Your task to perform on an android device: Go to privacy settings Image 0: 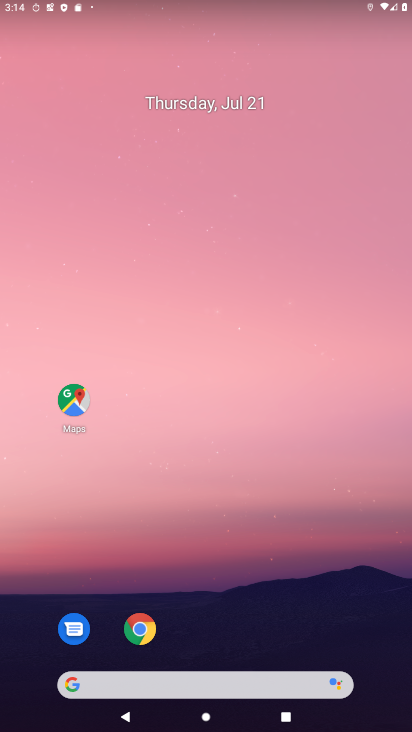
Step 0: drag from (218, 603) to (226, 80)
Your task to perform on an android device: Go to privacy settings Image 1: 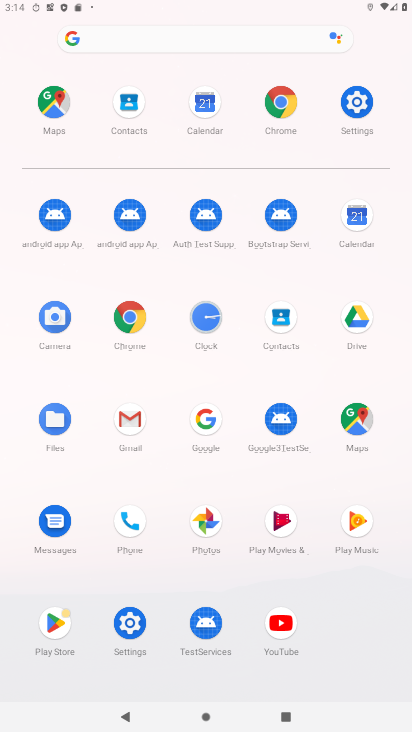
Step 1: click (136, 640)
Your task to perform on an android device: Go to privacy settings Image 2: 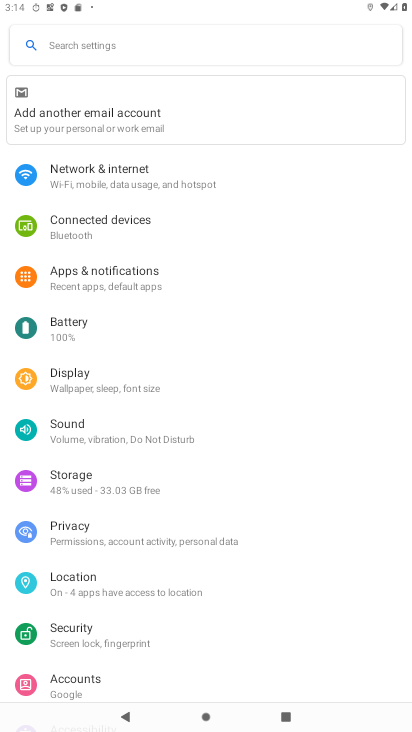
Step 2: click (92, 539)
Your task to perform on an android device: Go to privacy settings Image 3: 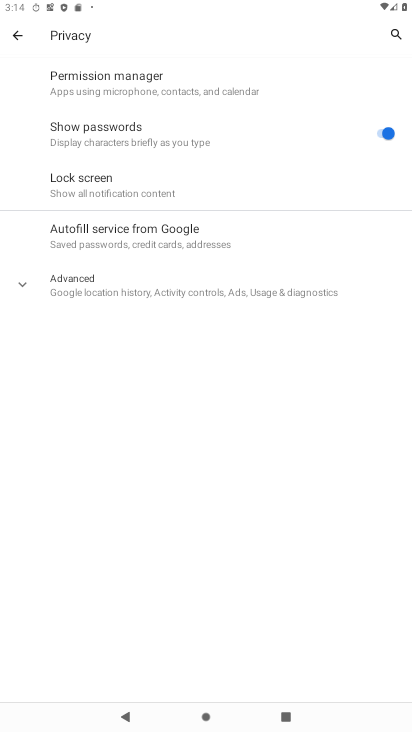
Step 3: task complete